Your task to perform on an android device: toggle pop-ups in chrome Image 0: 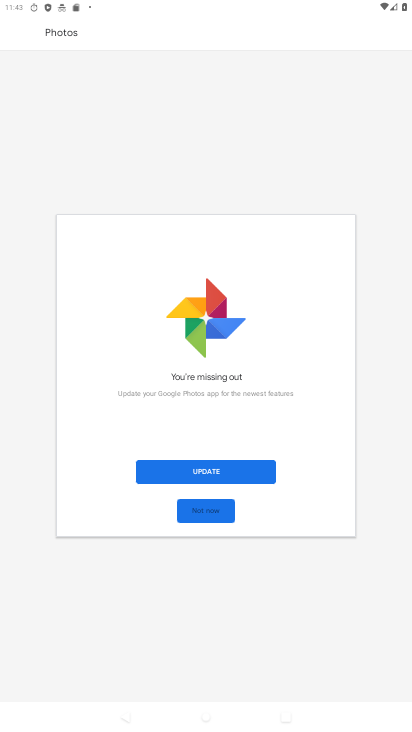
Step 0: press home button
Your task to perform on an android device: toggle pop-ups in chrome Image 1: 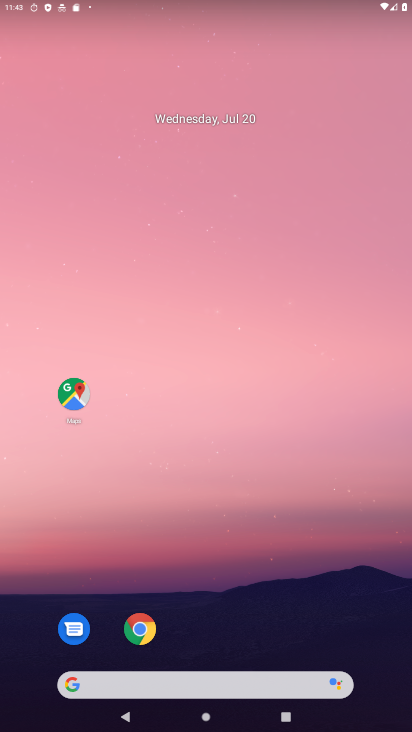
Step 1: drag from (182, 682) to (202, 1)
Your task to perform on an android device: toggle pop-ups in chrome Image 2: 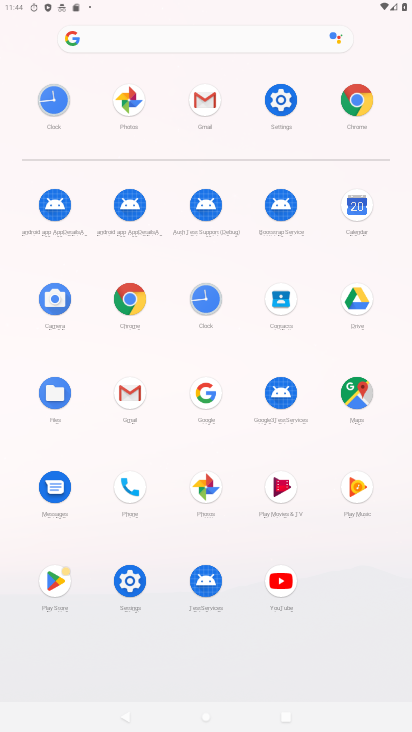
Step 2: click (284, 91)
Your task to perform on an android device: toggle pop-ups in chrome Image 3: 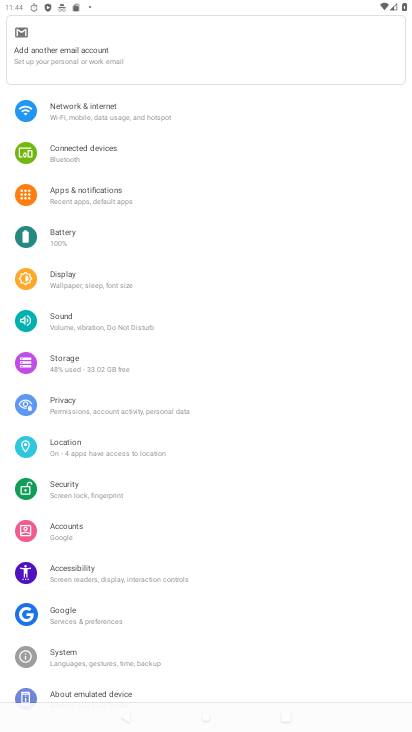
Step 3: press home button
Your task to perform on an android device: toggle pop-ups in chrome Image 4: 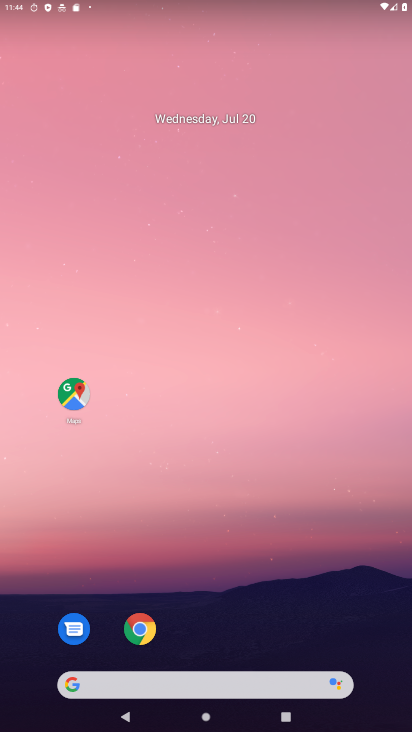
Step 4: drag from (328, 688) to (398, 0)
Your task to perform on an android device: toggle pop-ups in chrome Image 5: 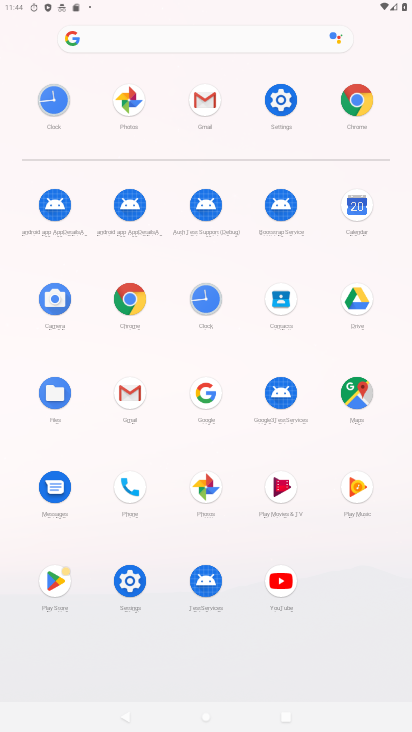
Step 5: click (136, 296)
Your task to perform on an android device: toggle pop-ups in chrome Image 6: 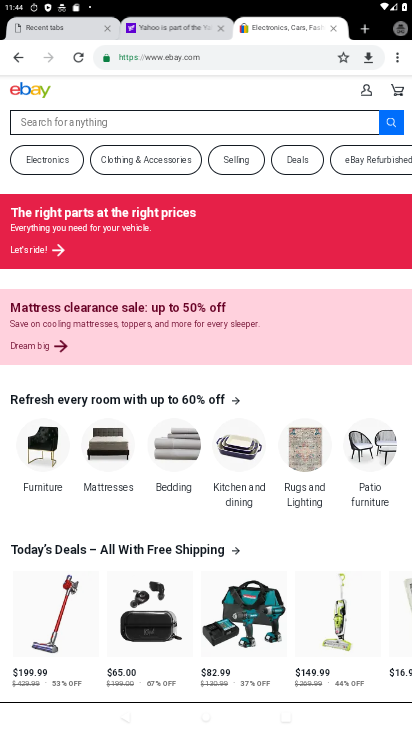
Step 6: drag from (396, 53) to (271, 373)
Your task to perform on an android device: toggle pop-ups in chrome Image 7: 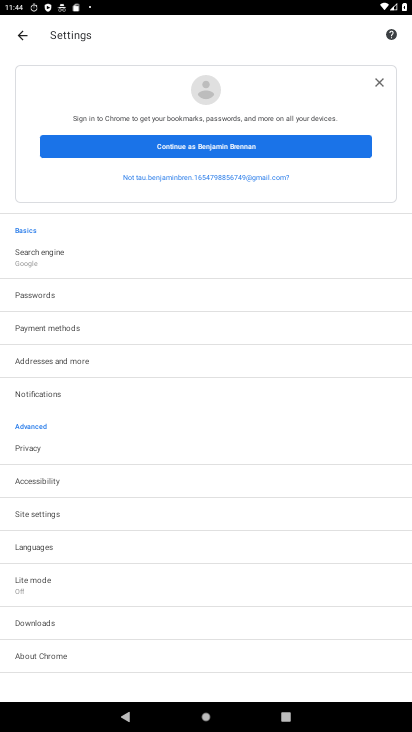
Step 7: drag from (113, 625) to (109, 476)
Your task to perform on an android device: toggle pop-ups in chrome Image 8: 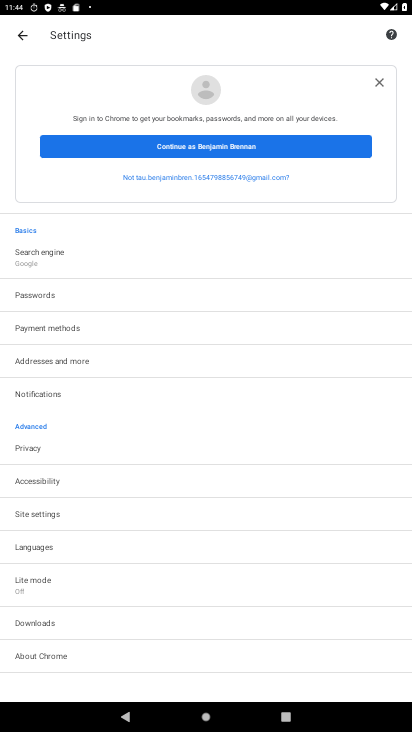
Step 8: click (83, 513)
Your task to perform on an android device: toggle pop-ups in chrome Image 9: 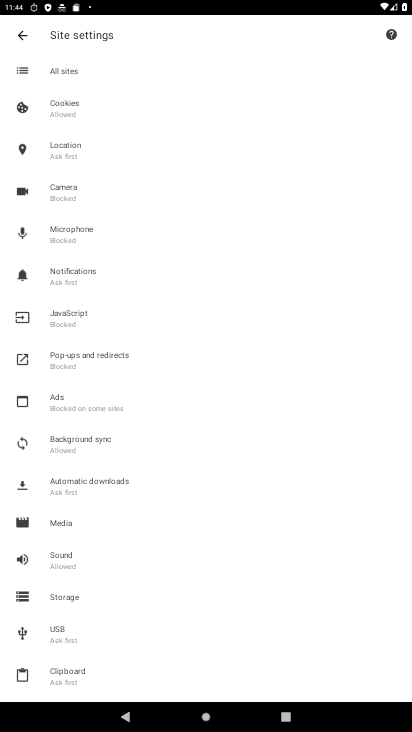
Step 9: click (97, 367)
Your task to perform on an android device: toggle pop-ups in chrome Image 10: 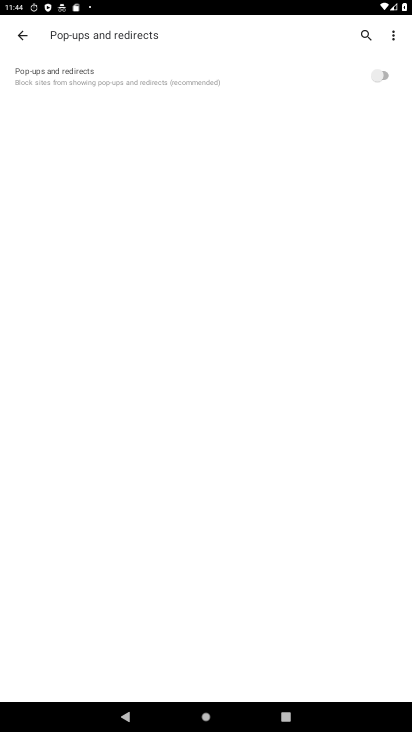
Step 10: click (381, 79)
Your task to perform on an android device: toggle pop-ups in chrome Image 11: 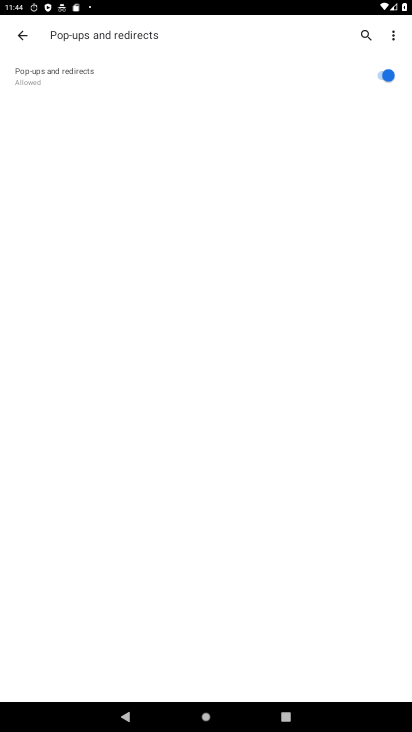
Step 11: task complete